Your task to perform on an android device: What is the recent news? Image 0: 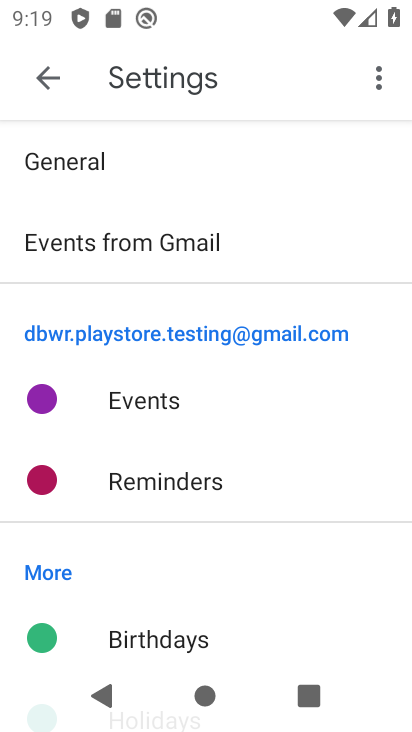
Step 0: press home button
Your task to perform on an android device: What is the recent news? Image 1: 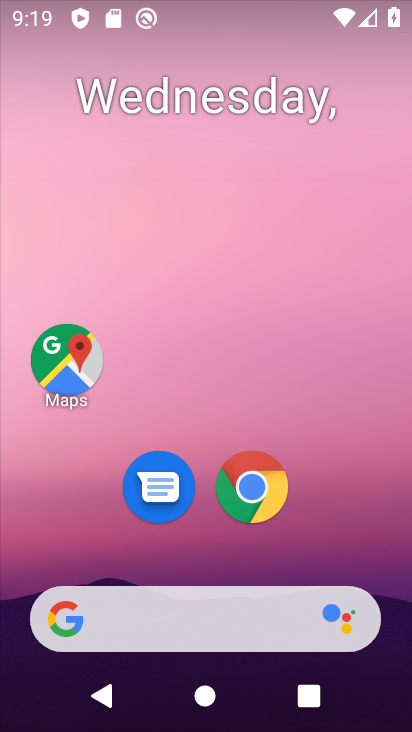
Step 1: drag from (212, 561) to (242, 238)
Your task to perform on an android device: What is the recent news? Image 2: 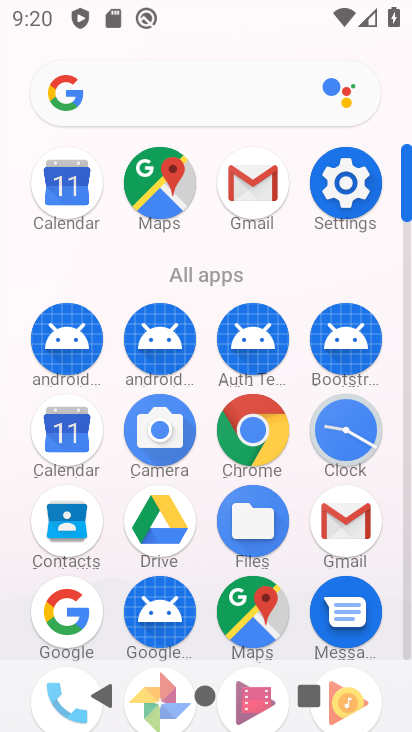
Step 2: click (69, 607)
Your task to perform on an android device: What is the recent news? Image 3: 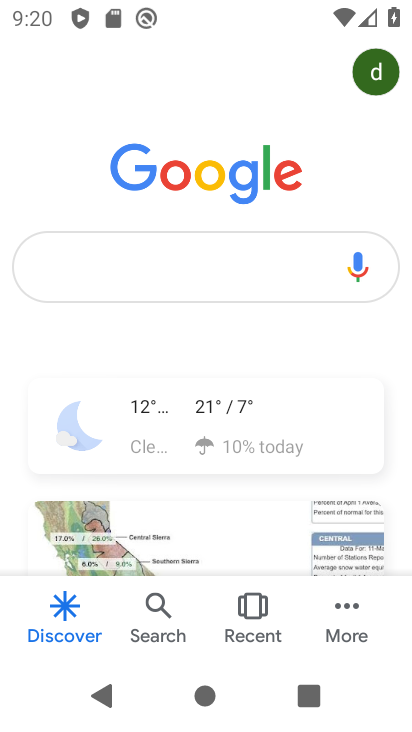
Step 3: click (151, 269)
Your task to perform on an android device: What is the recent news? Image 4: 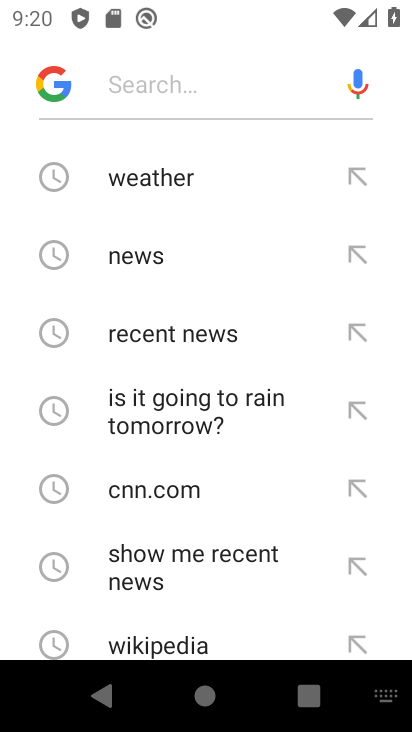
Step 4: click (180, 340)
Your task to perform on an android device: What is the recent news? Image 5: 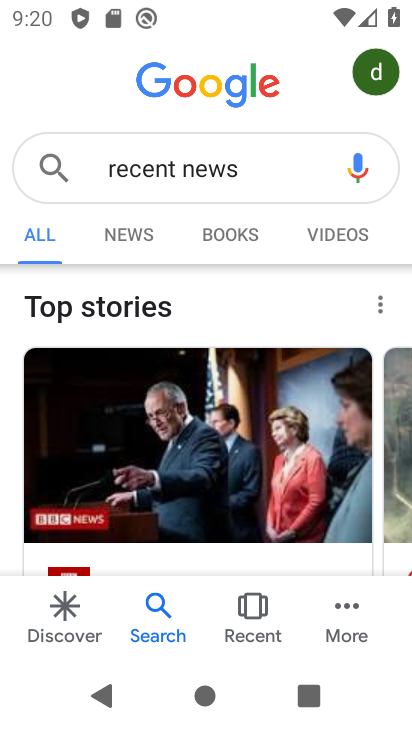
Step 5: click (132, 232)
Your task to perform on an android device: What is the recent news? Image 6: 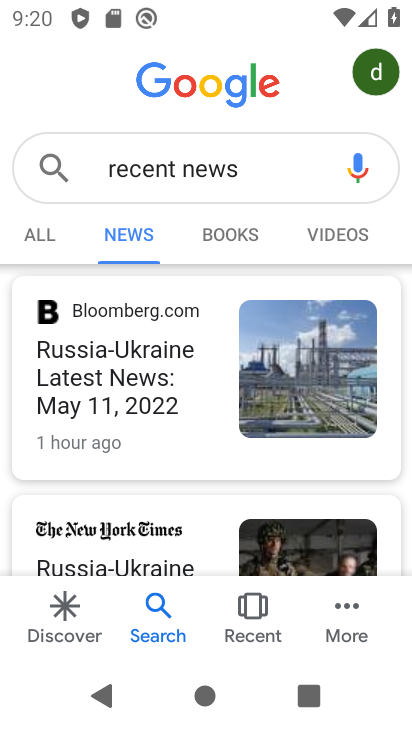
Step 6: task complete